Your task to perform on an android device: Search for "razer blade" on amazon.com, select the first entry, add it to the cart, then select checkout. Image 0: 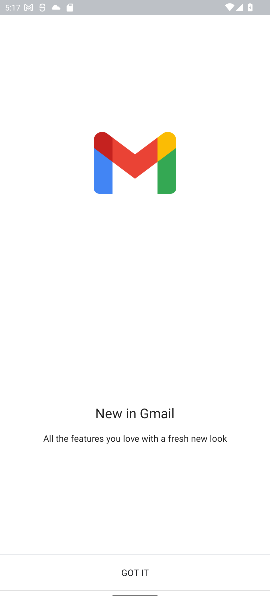
Step 0: press home button
Your task to perform on an android device: Search for "razer blade" on amazon.com, select the first entry, add it to the cart, then select checkout. Image 1: 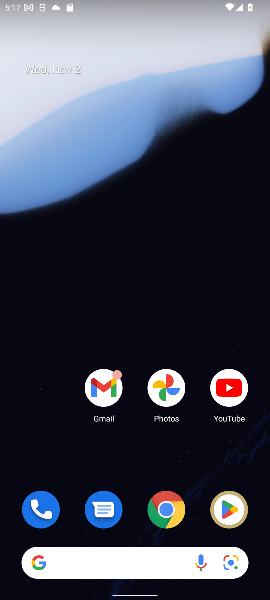
Step 1: click (79, 563)
Your task to perform on an android device: Search for "razer blade" on amazon.com, select the first entry, add it to the cart, then select checkout. Image 2: 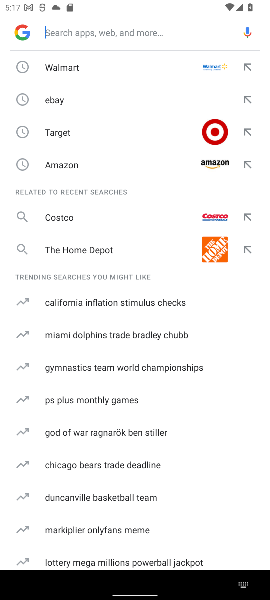
Step 2: click (62, 160)
Your task to perform on an android device: Search for "razer blade" on amazon.com, select the first entry, add it to the cart, then select checkout. Image 3: 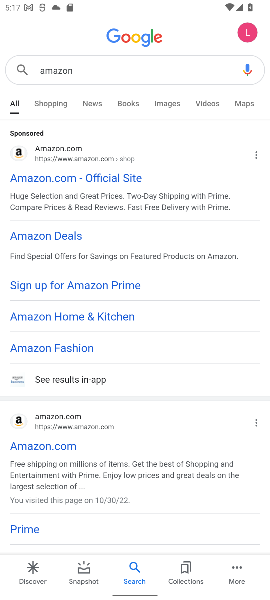
Step 3: click (48, 445)
Your task to perform on an android device: Search for "razer blade" on amazon.com, select the first entry, add it to the cart, then select checkout. Image 4: 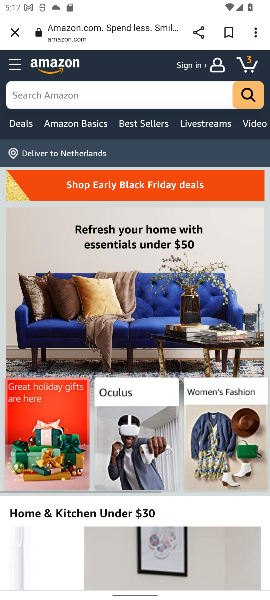
Step 4: click (120, 90)
Your task to perform on an android device: Search for "razer blade" on amazon.com, select the first entry, add it to the cart, then select checkout. Image 5: 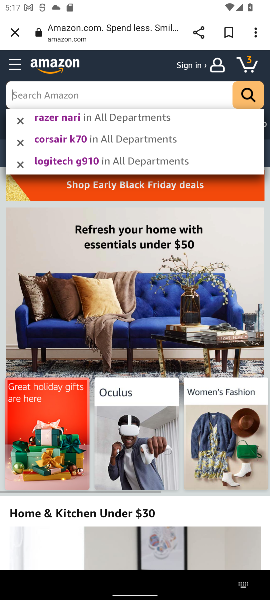
Step 5: type "razer blade"
Your task to perform on an android device: Search for "razer blade" on amazon.com, select the first entry, add it to the cart, then select checkout. Image 6: 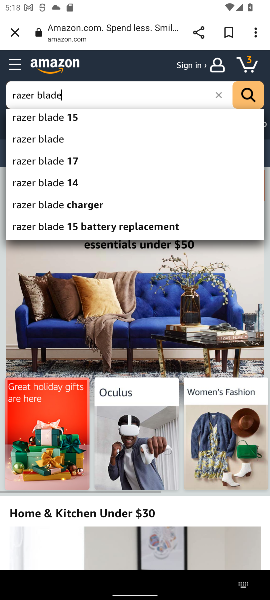
Step 6: click (40, 135)
Your task to perform on an android device: Search for "razer blade" on amazon.com, select the first entry, add it to the cart, then select checkout. Image 7: 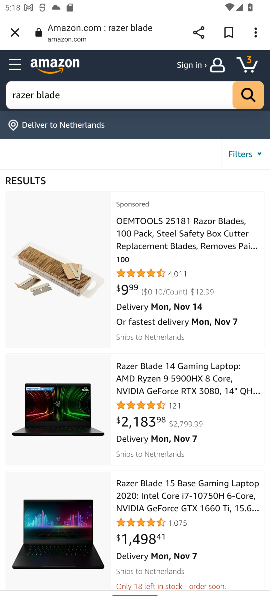
Step 7: drag from (235, 260) to (236, 541)
Your task to perform on an android device: Search for "razer blade" on amazon.com, select the first entry, add it to the cart, then select checkout. Image 8: 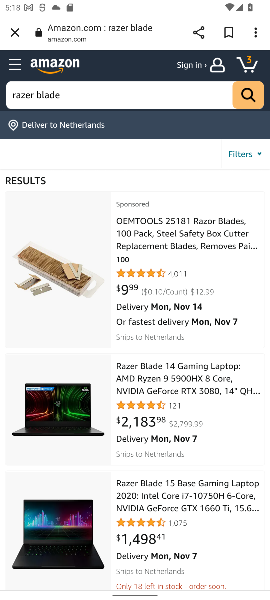
Step 8: click (169, 243)
Your task to perform on an android device: Search for "razer blade" on amazon.com, select the first entry, add it to the cart, then select checkout. Image 9: 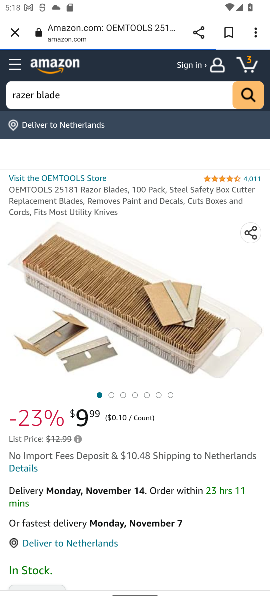
Step 9: drag from (196, 403) to (165, 234)
Your task to perform on an android device: Search for "razer blade" on amazon.com, select the first entry, add it to the cart, then select checkout. Image 10: 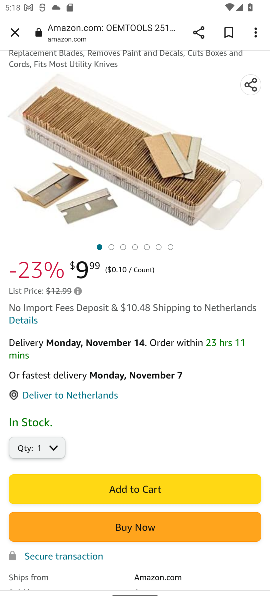
Step 10: click (149, 483)
Your task to perform on an android device: Search for "razer blade" on amazon.com, select the first entry, add it to the cart, then select checkout. Image 11: 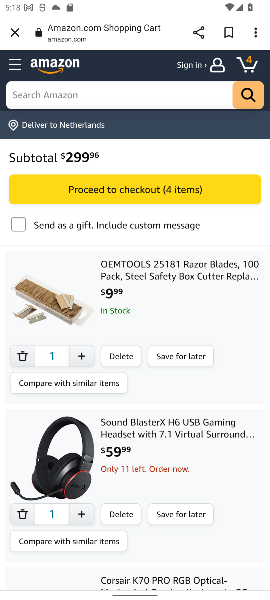
Step 11: click (132, 188)
Your task to perform on an android device: Search for "razer blade" on amazon.com, select the first entry, add it to the cart, then select checkout. Image 12: 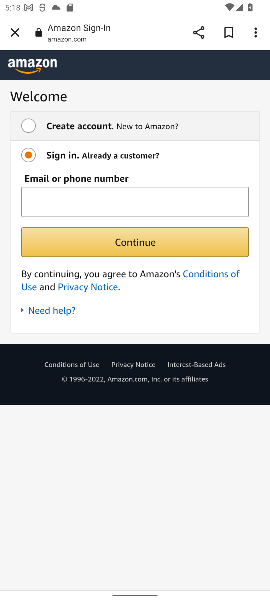
Step 12: task complete